Your task to perform on an android device: Is it going to rain tomorrow? Image 0: 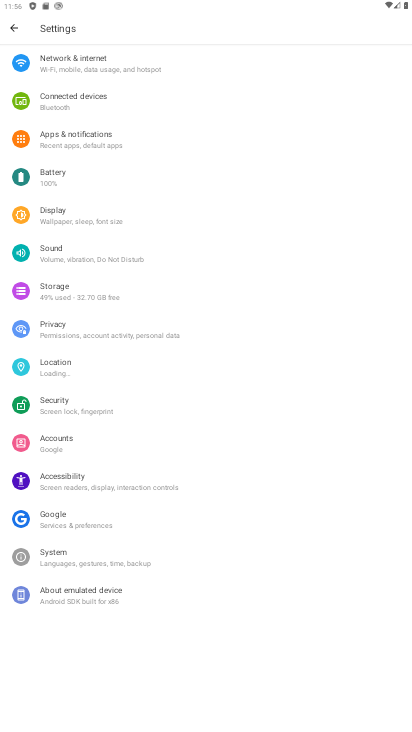
Step 0: press home button
Your task to perform on an android device: Is it going to rain tomorrow? Image 1: 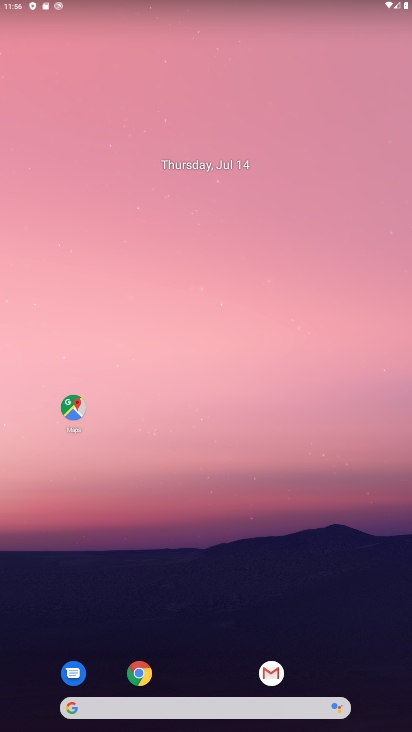
Step 1: click (192, 709)
Your task to perform on an android device: Is it going to rain tomorrow? Image 2: 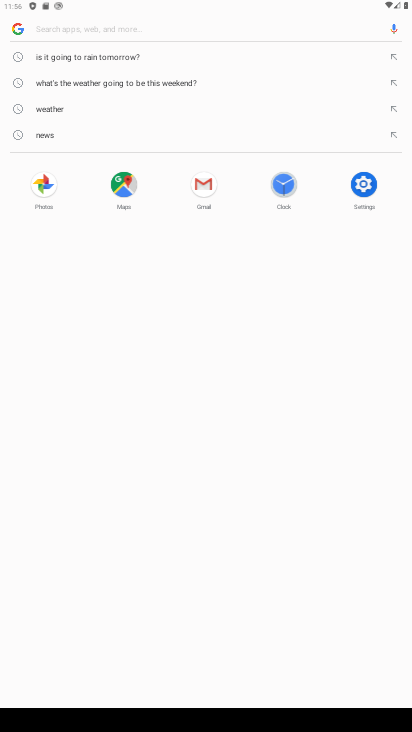
Step 2: click (105, 64)
Your task to perform on an android device: Is it going to rain tomorrow? Image 3: 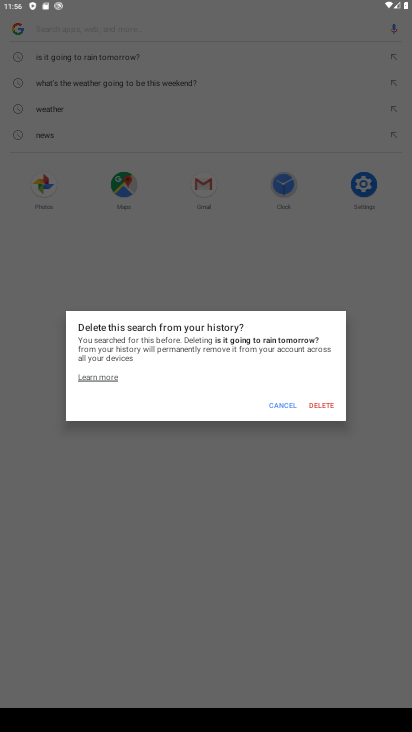
Step 3: click (277, 404)
Your task to perform on an android device: Is it going to rain tomorrow? Image 4: 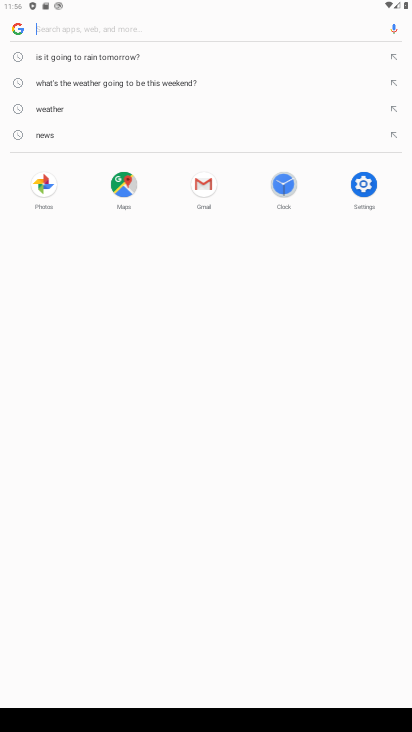
Step 4: click (56, 65)
Your task to perform on an android device: Is it going to rain tomorrow? Image 5: 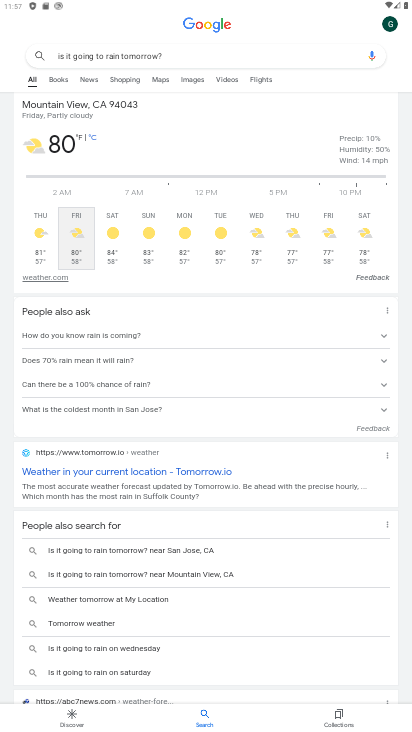
Step 5: task complete